Your task to perform on an android device: What's on my calendar today? Image 0: 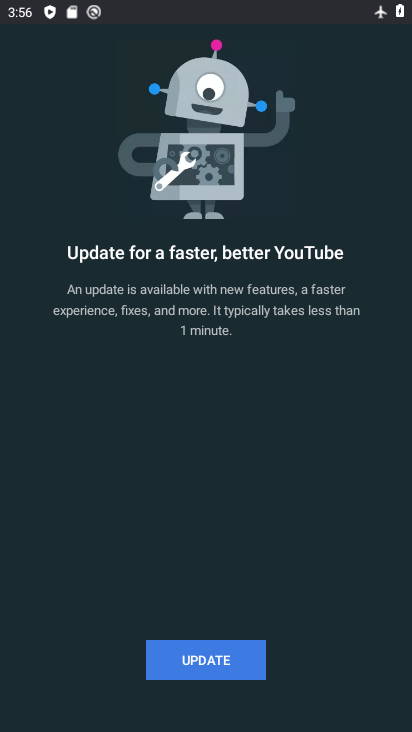
Step 0: press home button
Your task to perform on an android device: What's on my calendar today? Image 1: 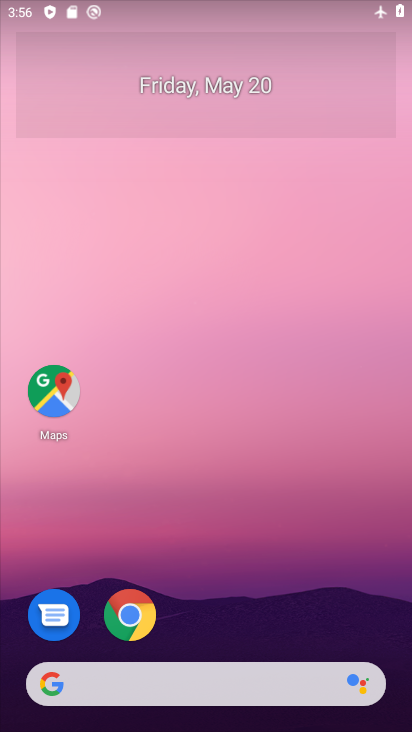
Step 1: drag from (221, 566) to (350, 152)
Your task to perform on an android device: What's on my calendar today? Image 2: 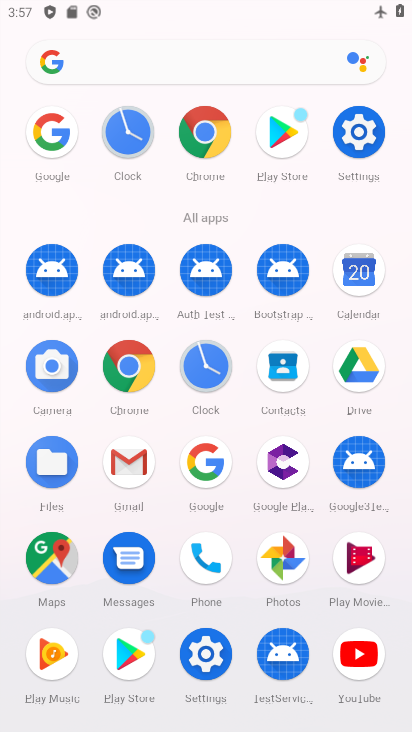
Step 2: click (360, 290)
Your task to perform on an android device: What's on my calendar today? Image 3: 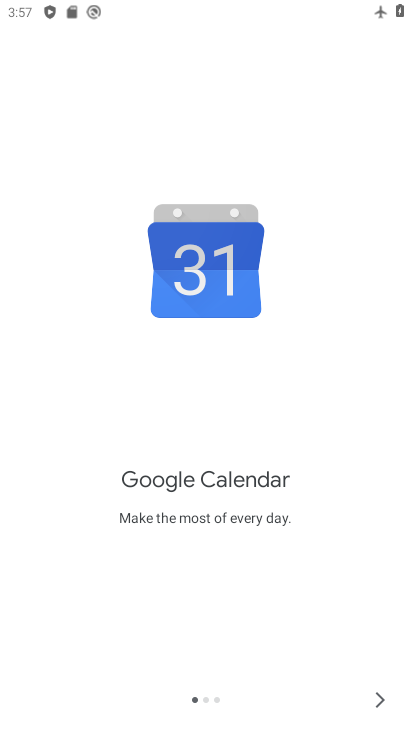
Step 3: click (387, 702)
Your task to perform on an android device: What's on my calendar today? Image 4: 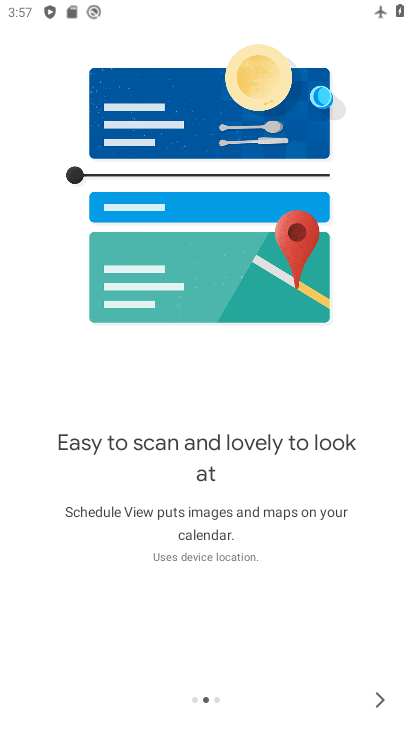
Step 4: click (382, 702)
Your task to perform on an android device: What's on my calendar today? Image 5: 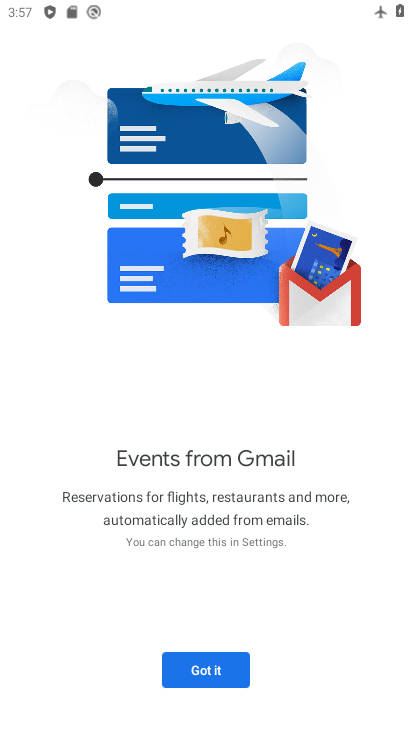
Step 5: click (215, 671)
Your task to perform on an android device: What's on my calendar today? Image 6: 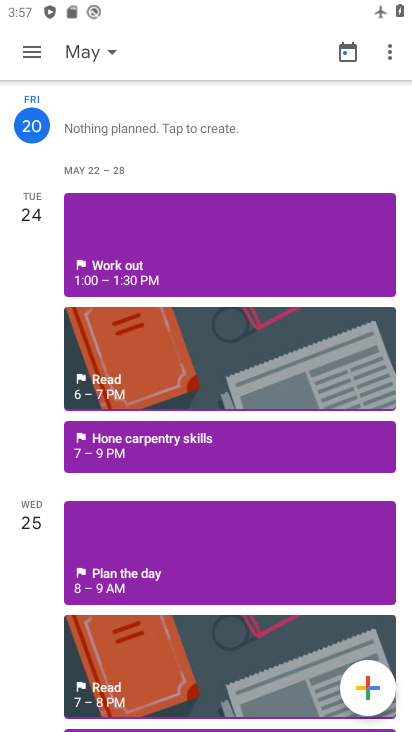
Step 6: task complete